Your task to perform on an android device: Is it going to rain this weekend? Image 0: 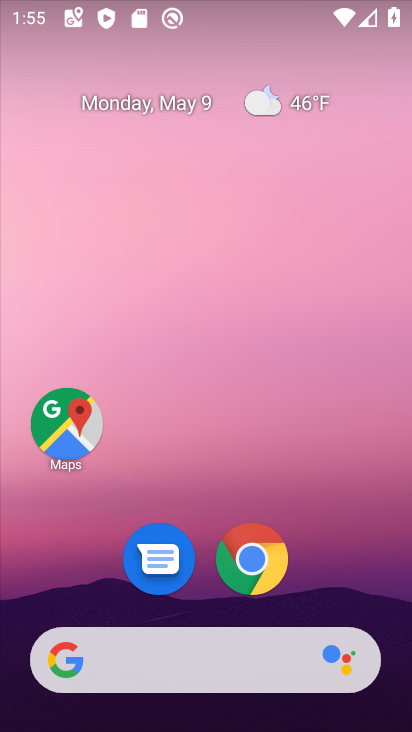
Step 0: drag from (327, 569) to (305, 151)
Your task to perform on an android device: Is it going to rain this weekend? Image 1: 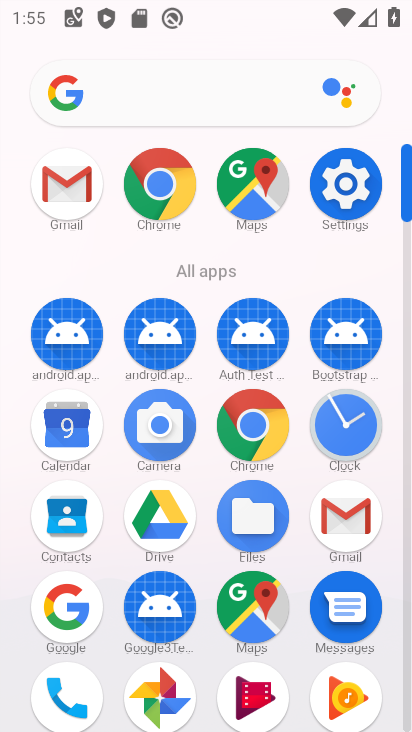
Step 1: click (179, 192)
Your task to perform on an android device: Is it going to rain this weekend? Image 2: 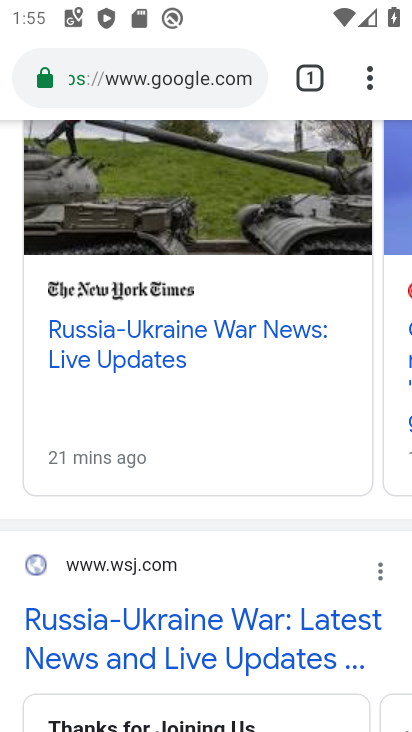
Step 2: click (222, 76)
Your task to perform on an android device: Is it going to rain this weekend? Image 3: 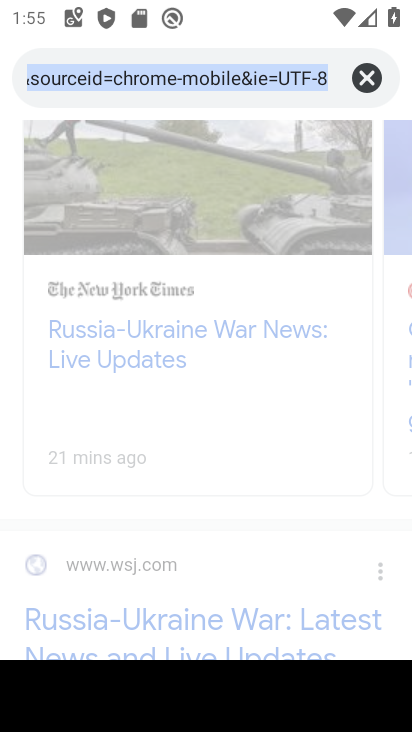
Step 3: click (370, 82)
Your task to perform on an android device: Is it going to rain this weekend? Image 4: 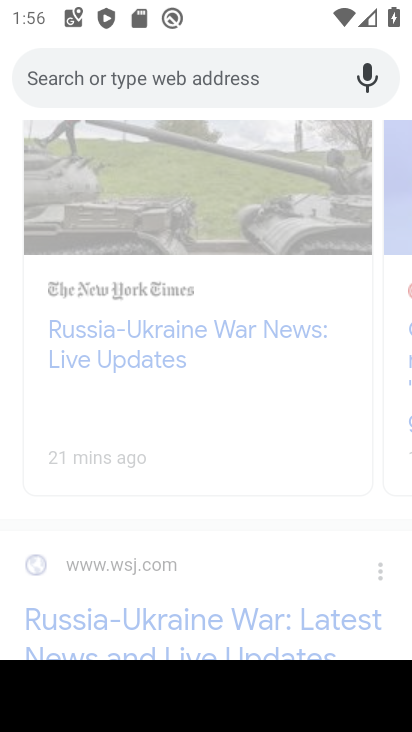
Step 4: type "is it going to rain this weekend"
Your task to perform on an android device: Is it going to rain this weekend? Image 5: 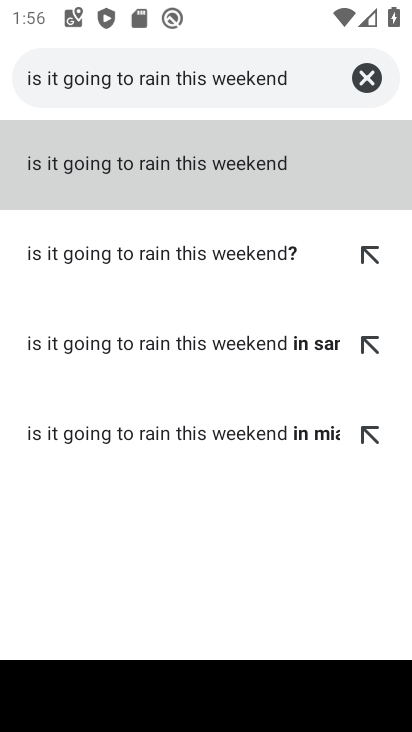
Step 5: click (169, 158)
Your task to perform on an android device: Is it going to rain this weekend? Image 6: 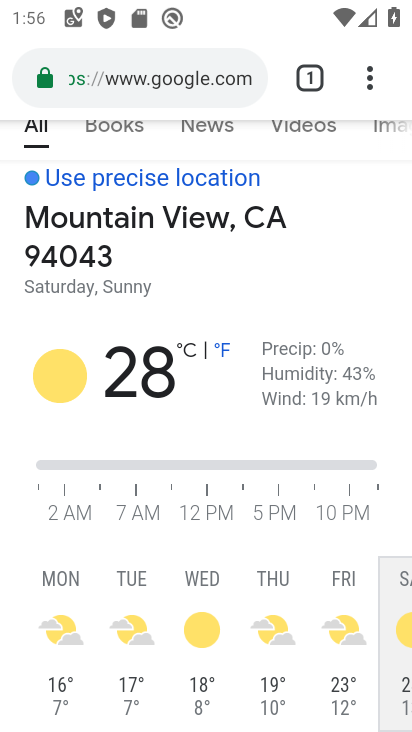
Step 6: task complete